Your task to perform on an android device: change the clock style Image 0: 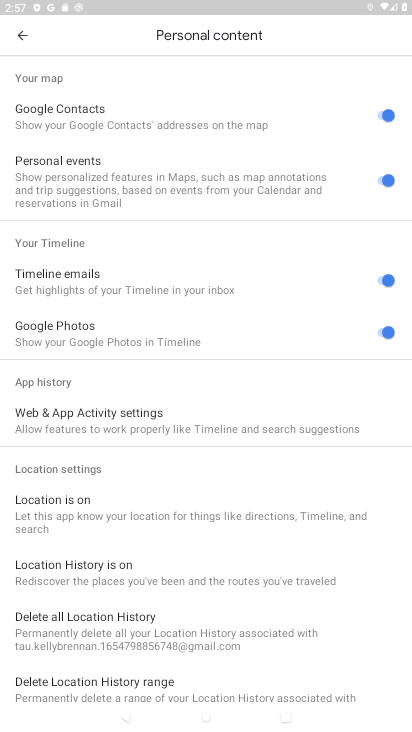
Step 0: press home button
Your task to perform on an android device: change the clock style Image 1: 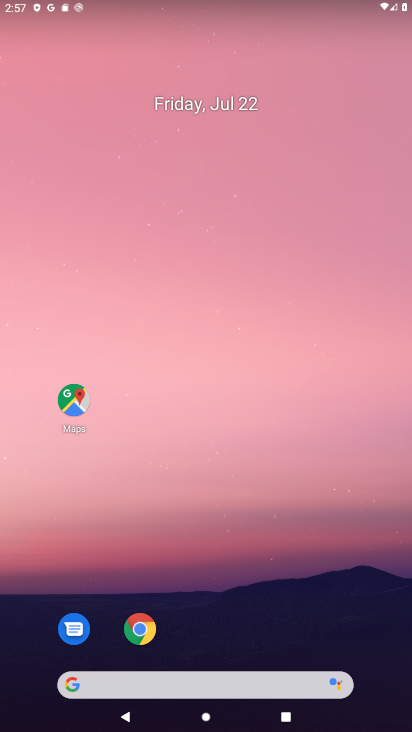
Step 1: drag from (230, 544) to (245, 20)
Your task to perform on an android device: change the clock style Image 2: 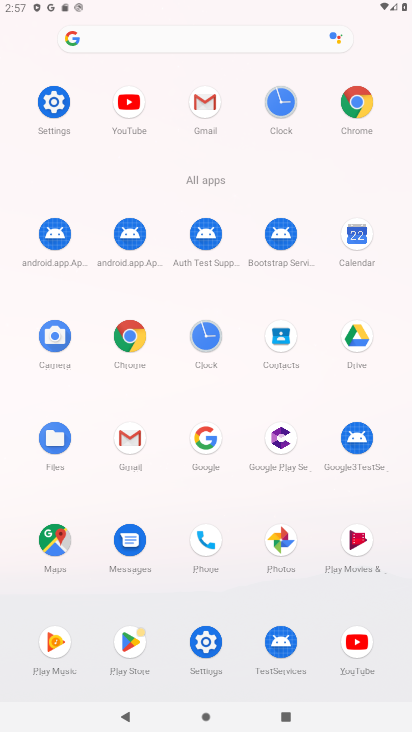
Step 2: click (207, 341)
Your task to perform on an android device: change the clock style Image 3: 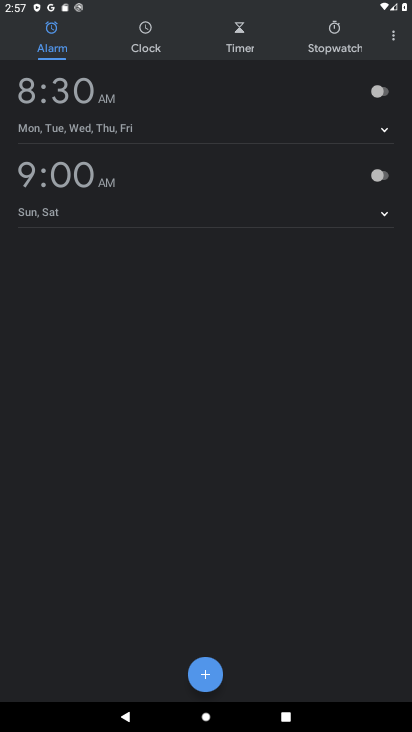
Step 3: click (393, 33)
Your task to perform on an android device: change the clock style Image 4: 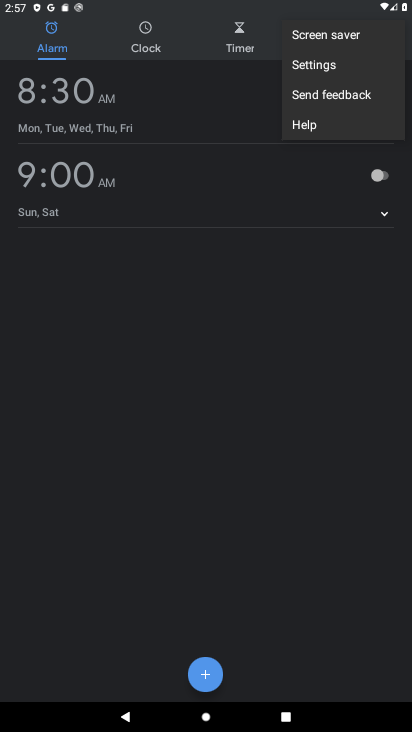
Step 4: click (319, 73)
Your task to perform on an android device: change the clock style Image 5: 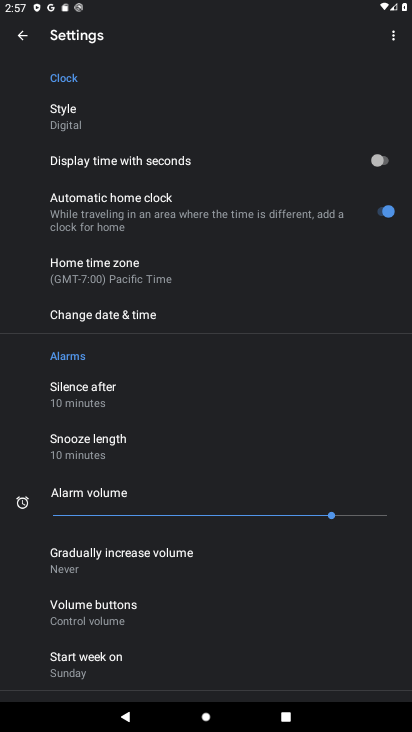
Step 5: click (63, 121)
Your task to perform on an android device: change the clock style Image 6: 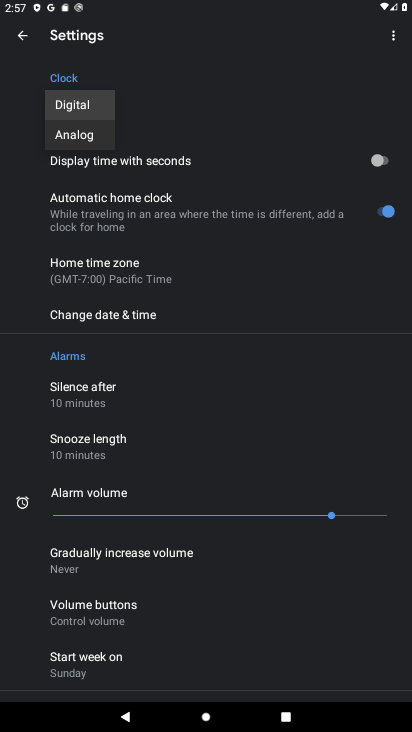
Step 6: click (68, 140)
Your task to perform on an android device: change the clock style Image 7: 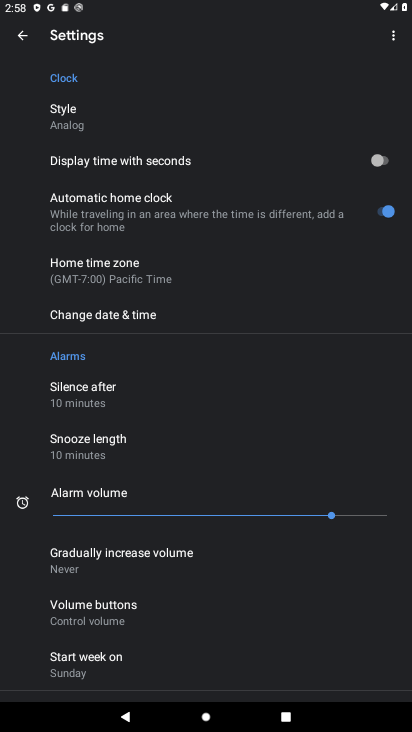
Step 7: task complete